Your task to perform on an android device: Show the shopping cart on costco. Search for "macbook pro" on costco, select the first entry, and add it to the cart. Image 0: 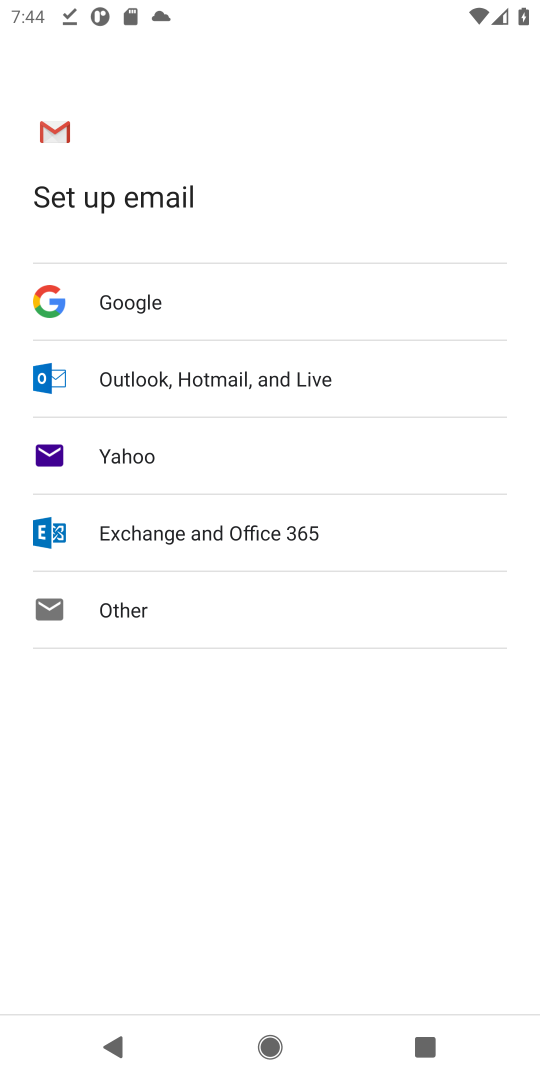
Step 0: task complete